Your task to perform on an android device: toggle notifications settings in the gmail app Image 0: 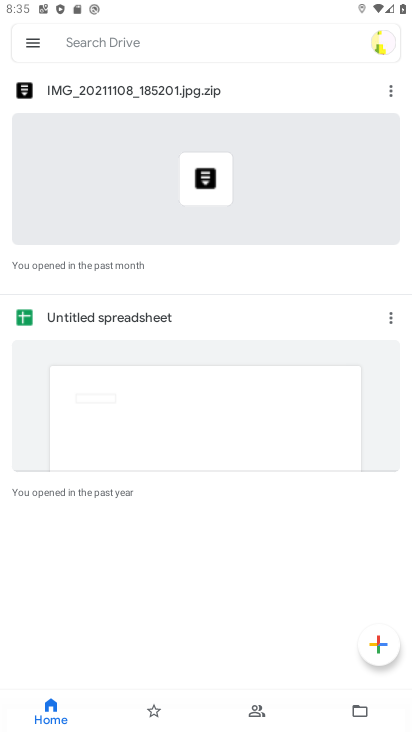
Step 0: press back button
Your task to perform on an android device: toggle notifications settings in the gmail app Image 1: 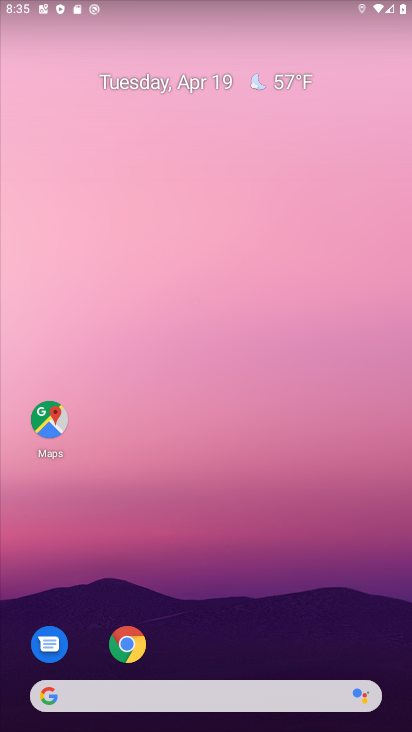
Step 1: drag from (172, 672) to (299, 28)
Your task to perform on an android device: toggle notifications settings in the gmail app Image 2: 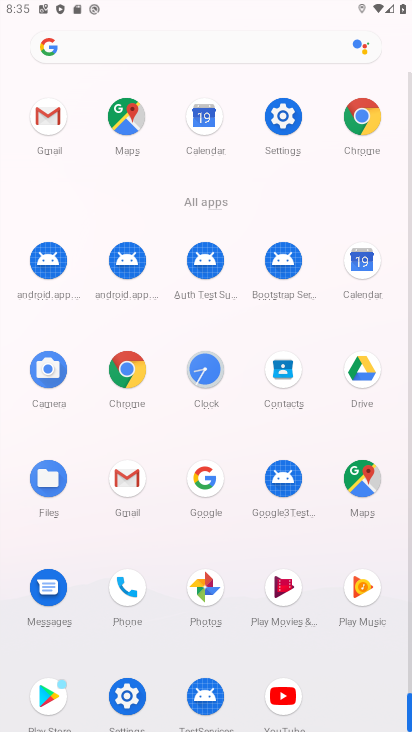
Step 2: click (123, 492)
Your task to perform on an android device: toggle notifications settings in the gmail app Image 3: 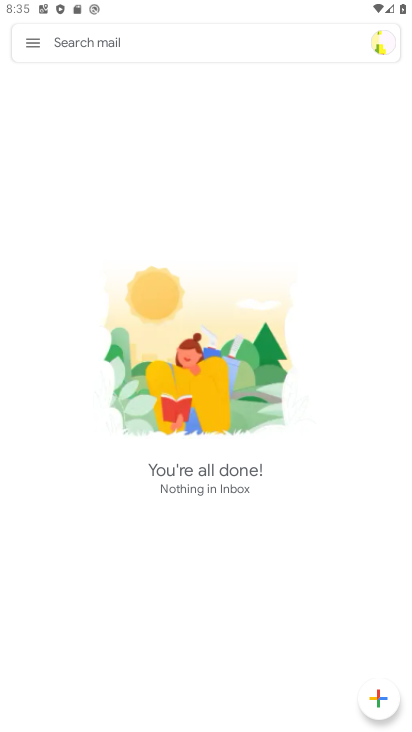
Step 3: click (37, 42)
Your task to perform on an android device: toggle notifications settings in the gmail app Image 4: 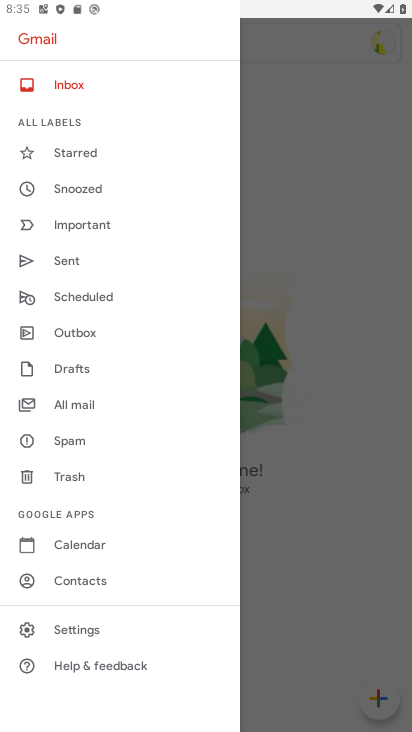
Step 4: click (90, 627)
Your task to perform on an android device: toggle notifications settings in the gmail app Image 5: 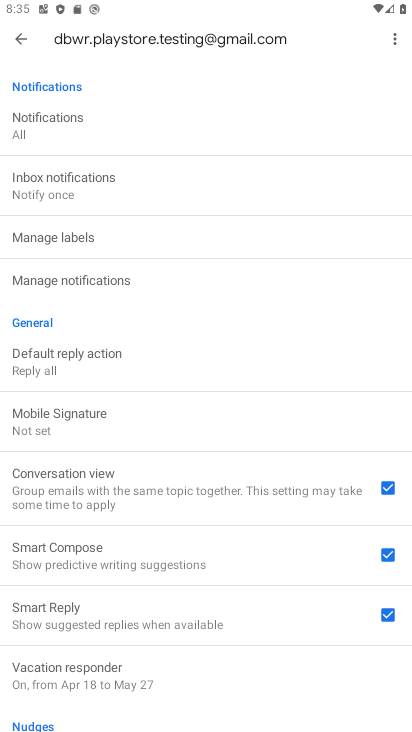
Step 5: click (115, 277)
Your task to perform on an android device: toggle notifications settings in the gmail app Image 6: 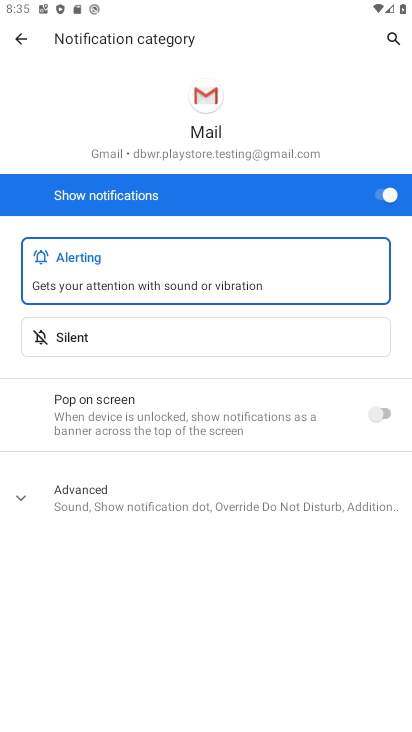
Step 6: click (375, 192)
Your task to perform on an android device: toggle notifications settings in the gmail app Image 7: 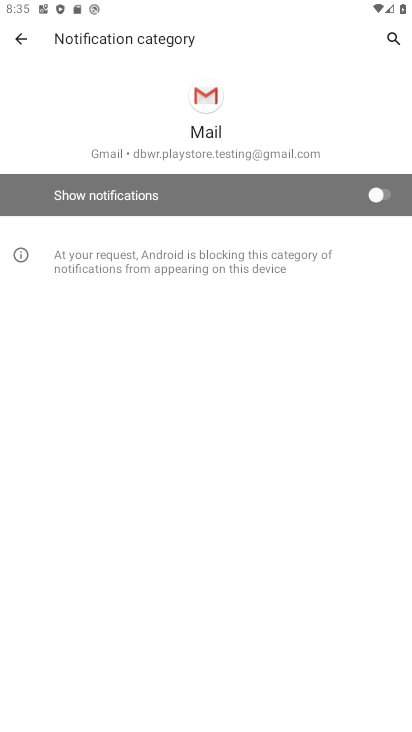
Step 7: task complete